Your task to perform on an android device: turn on translation in the chrome app Image 0: 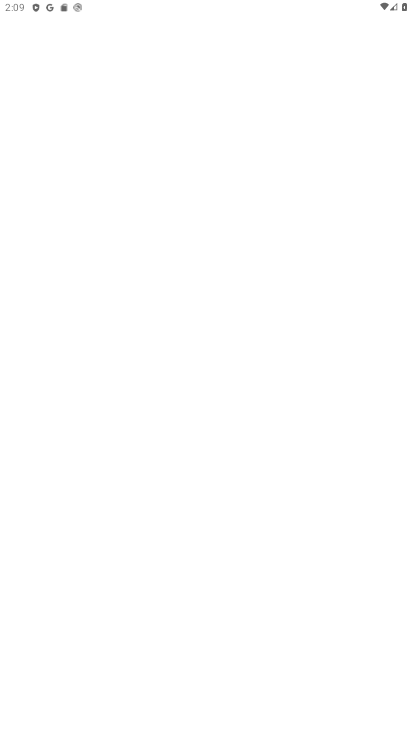
Step 0: press home button
Your task to perform on an android device: turn on translation in the chrome app Image 1: 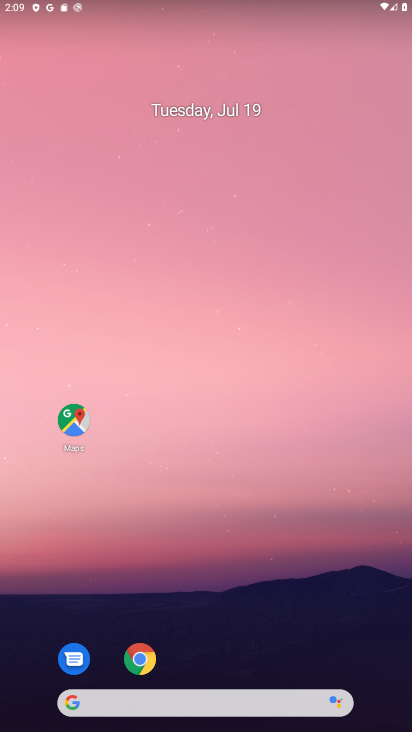
Step 1: drag from (243, 697) to (251, 52)
Your task to perform on an android device: turn on translation in the chrome app Image 2: 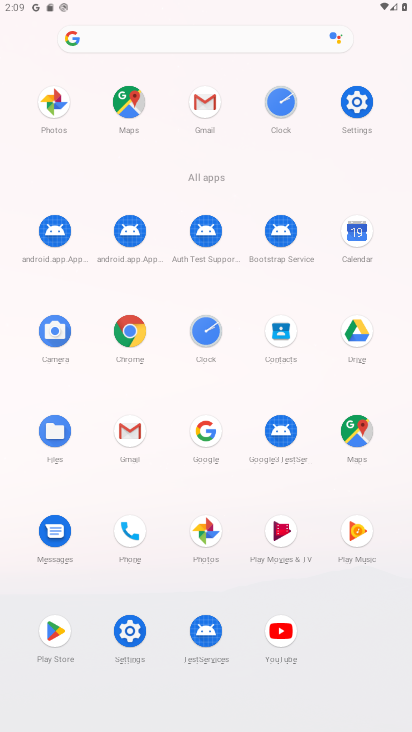
Step 2: click (135, 324)
Your task to perform on an android device: turn on translation in the chrome app Image 3: 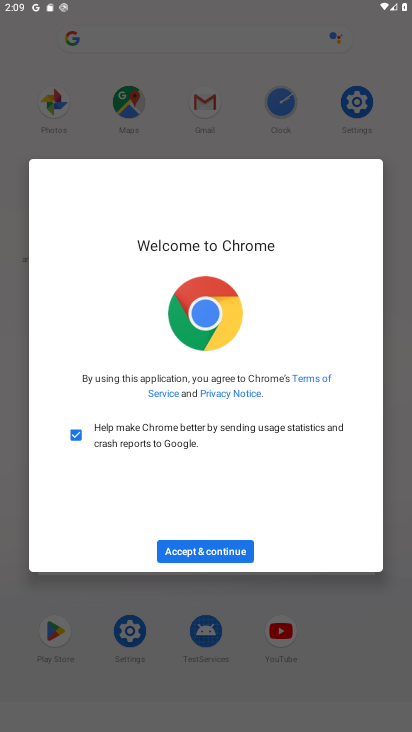
Step 3: click (237, 550)
Your task to perform on an android device: turn on translation in the chrome app Image 4: 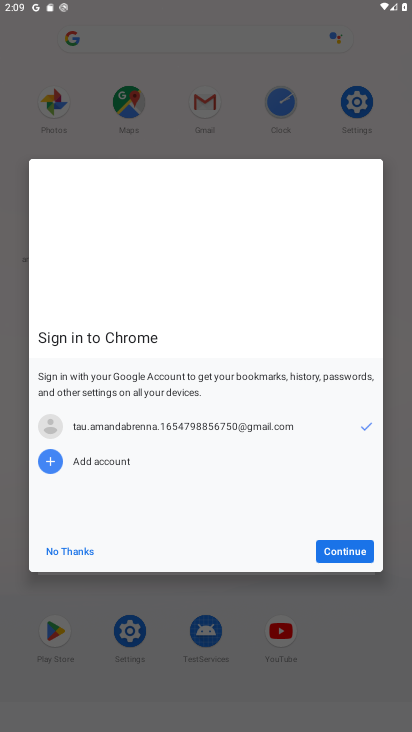
Step 4: click (335, 545)
Your task to perform on an android device: turn on translation in the chrome app Image 5: 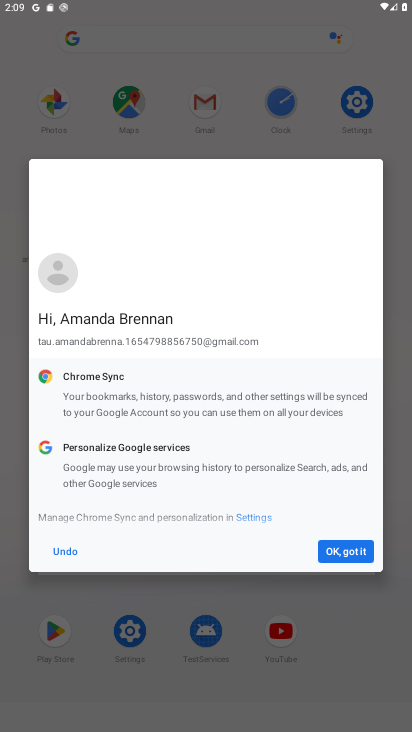
Step 5: click (333, 555)
Your task to perform on an android device: turn on translation in the chrome app Image 6: 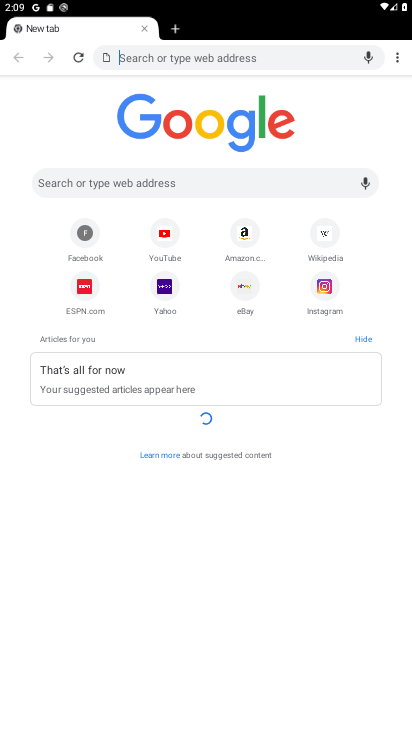
Step 6: click (396, 55)
Your task to perform on an android device: turn on translation in the chrome app Image 7: 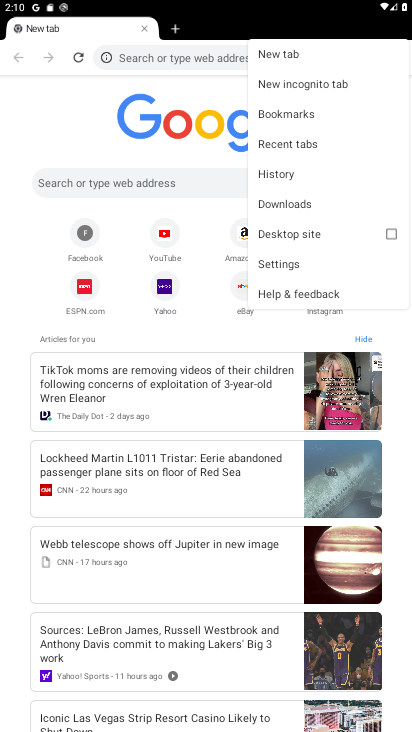
Step 7: click (275, 258)
Your task to perform on an android device: turn on translation in the chrome app Image 8: 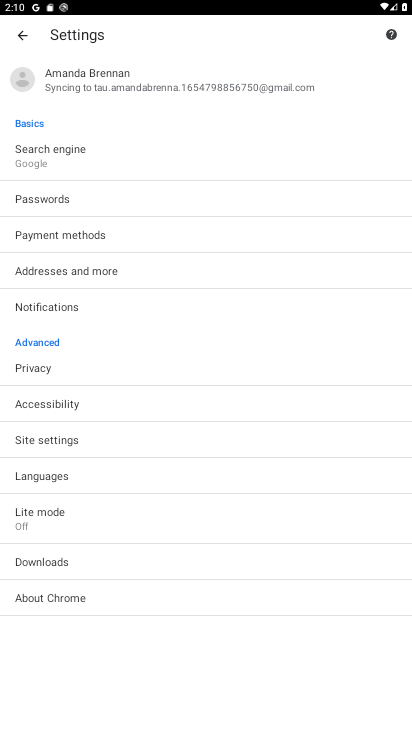
Step 8: click (36, 474)
Your task to perform on an android device: turn on translation in the chrome app Image 9: 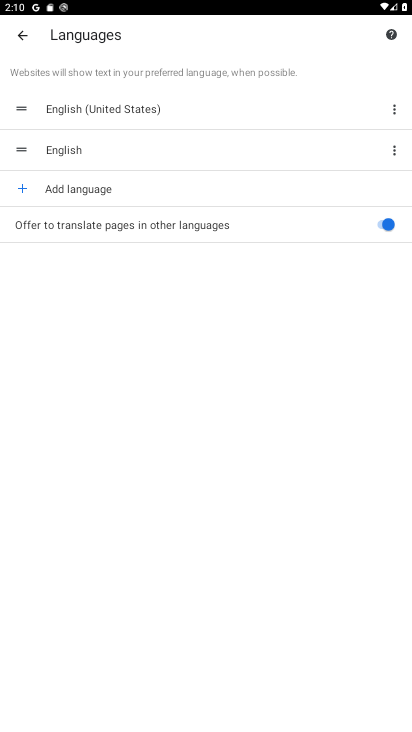
Step 9: task complete